Your task to perform on an android device: Go to Wikipedia Image 0: 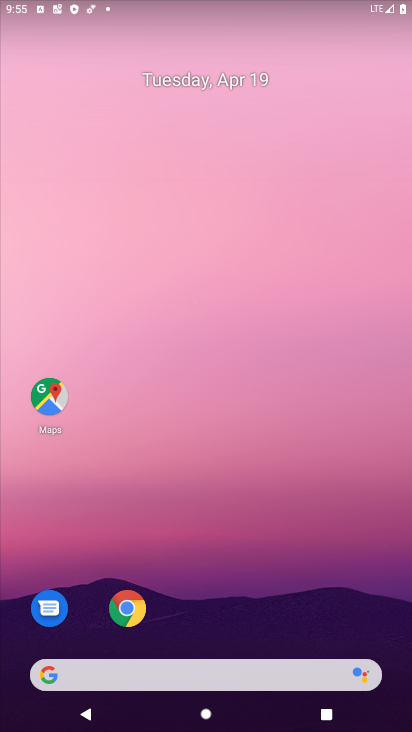
Step 0: drag from (352, 568) to (269, 30)
Your task to perform on an android device: Go to Wikipedia Image 1: 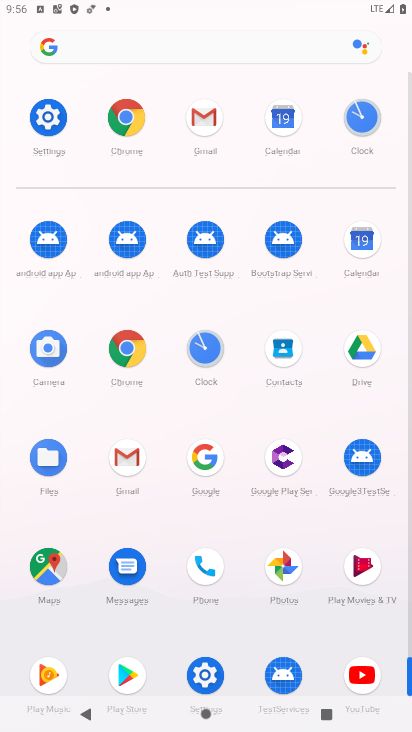
Step 1: click (125, 349)
Your task to perform on an android device: Go to Wikipedia Image 2: 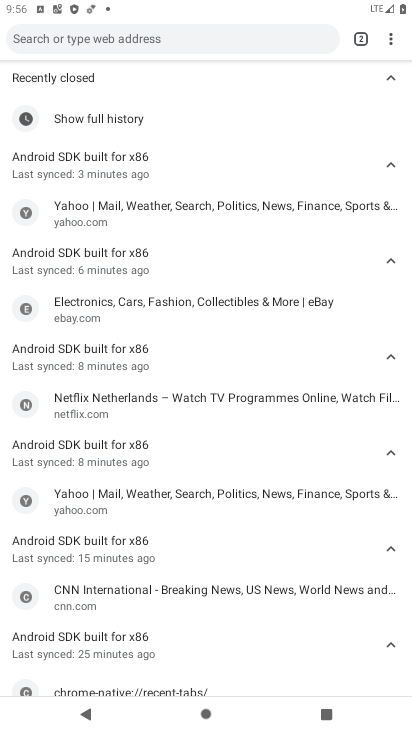
Step 2: click (390, 41)
Your task to perform on an android device: Go to Wikipedia Image 3: 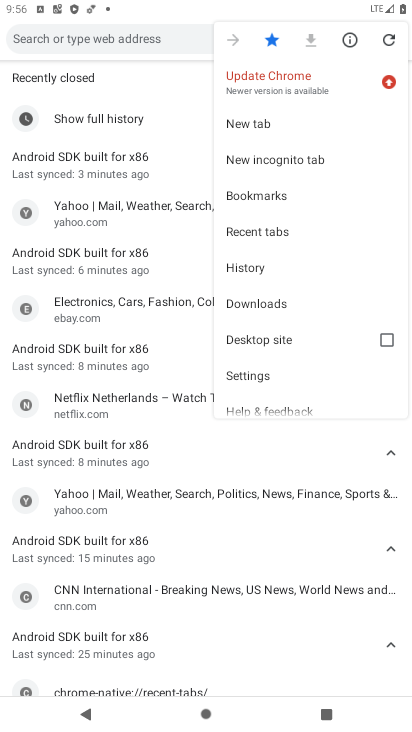
Step 3: click (245, 119)
Your task to perform on an android device: Go to Wikipedia Image 4: 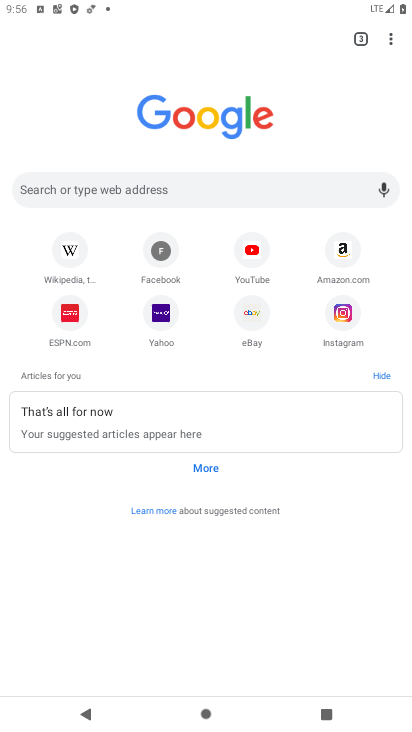
Step 4: click (69, 251)
Your task to perform on an android device: Go to Wikipedia Image 5: 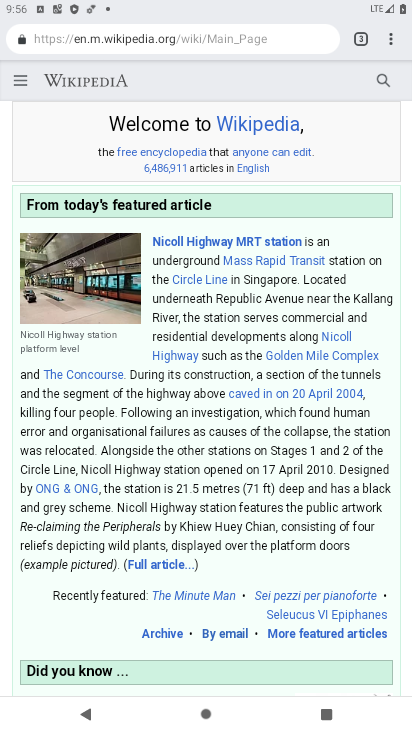
Step 5: task complete